Your task to perform on an android device: all mails in gmail Image 0: 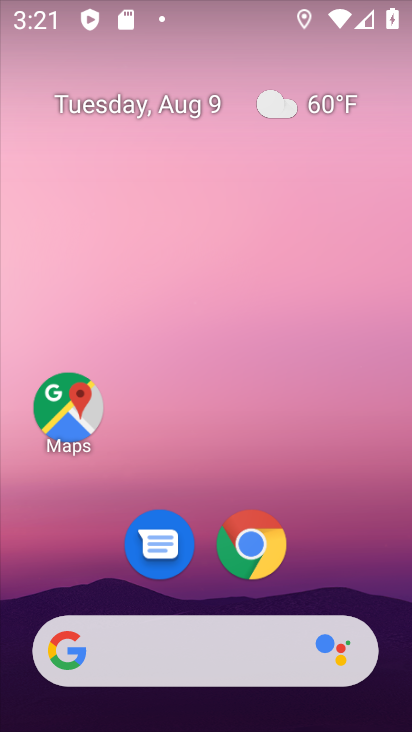
Step 0: drag from (234, 707) to (260, 239)
Your task to perform on an android device: all mails in gmail Image 1: 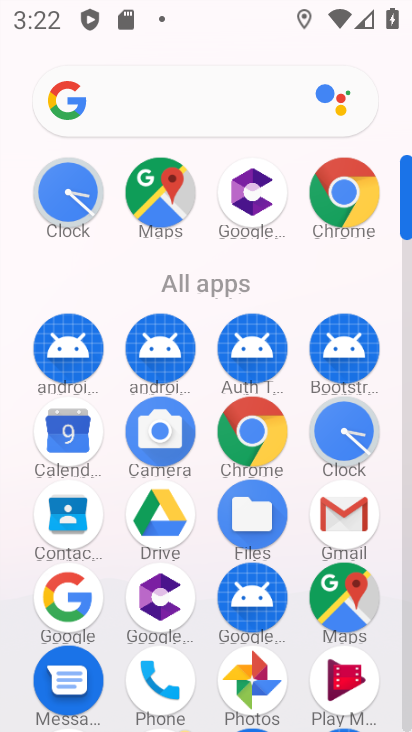
Step 1: click (363, 574)
Your task to perform on an android device: all mails in gmail Image 2: 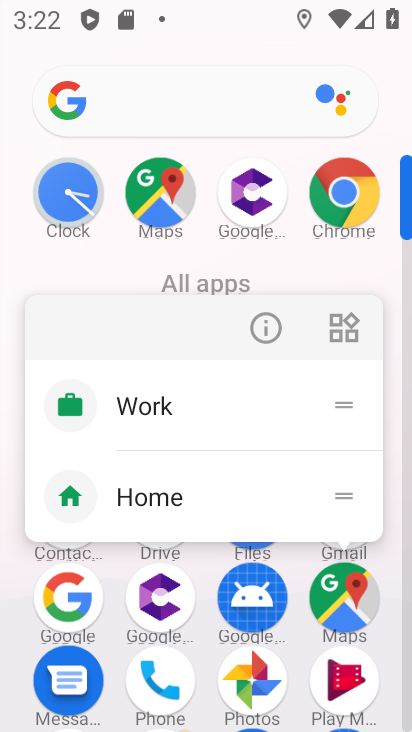
Step 2: click (241, 115)
Your task to perform on an android device: all mails in gmail Image 3: 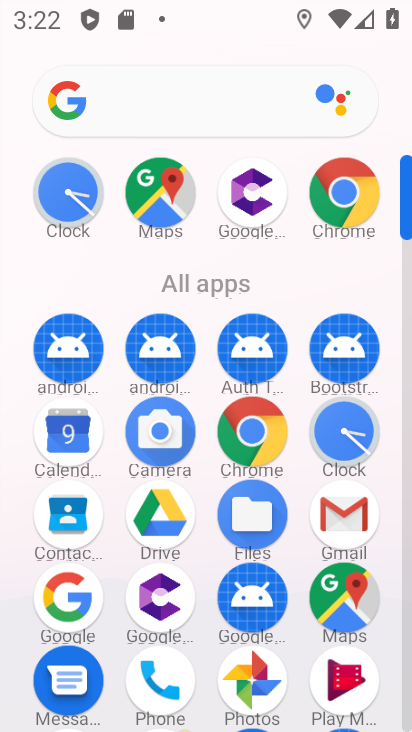
Step 3: click (338, 519)
Your task to perform on an android device: all mails in gmail Image 4: 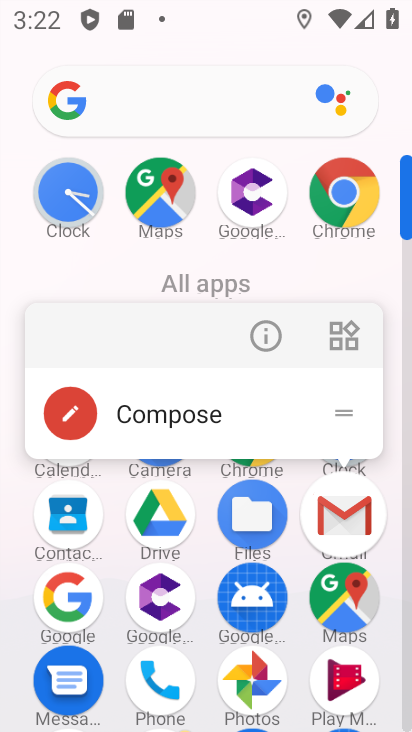
Step 4: click (338, 519)
Your task to perform on an android device: all mails in gmail Image 5: 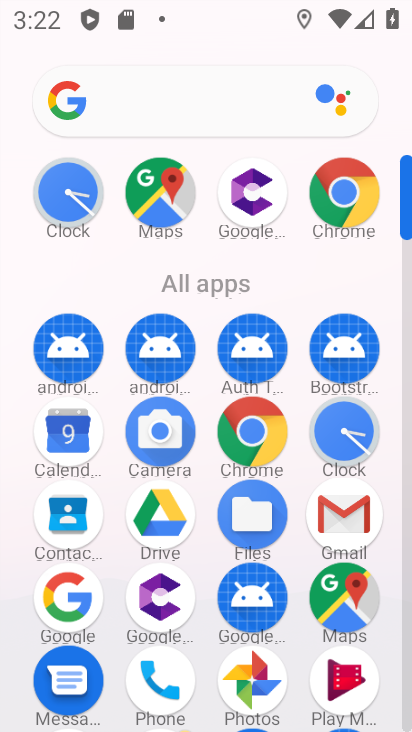
Step 5: click (338, 519)
Your task to perform on an android device: all mails in gmail Image 6: 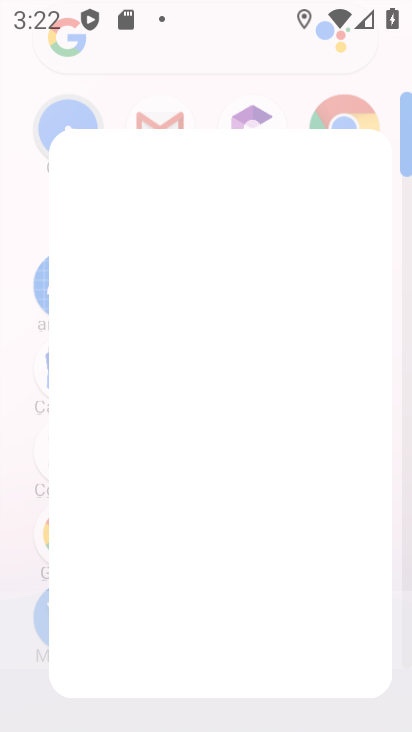
Step 6: click (338, 519)
Your task to perform on an android device: all mails in gmail Image 7: 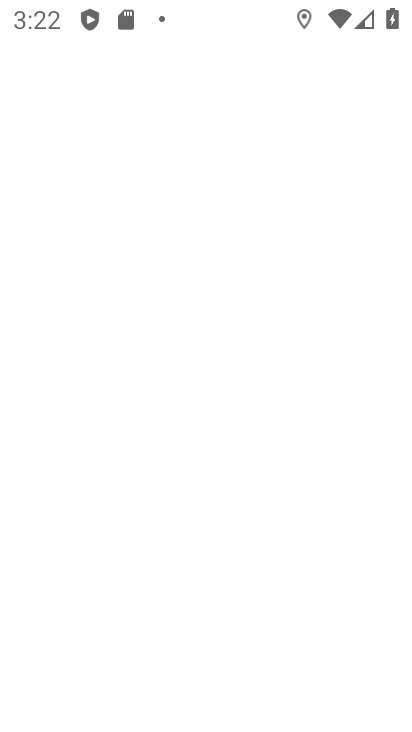
Step 7: click (338, 519)
Your task to perform on an android device: all mails in gmail Image 8: 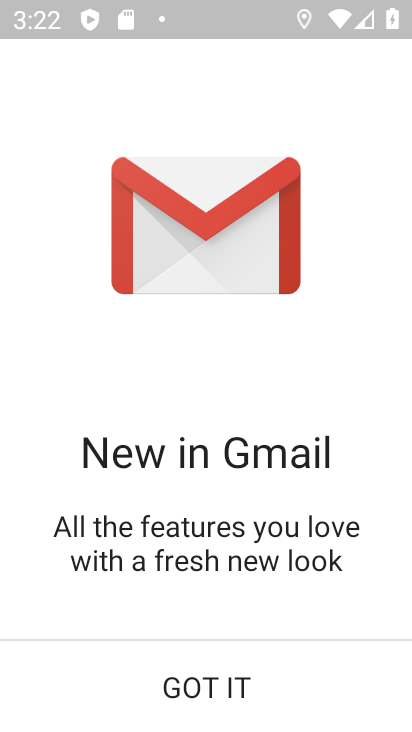
Step 8: click (220, 671)
Your task to perform on an android device: all mails in gmail Image 9: 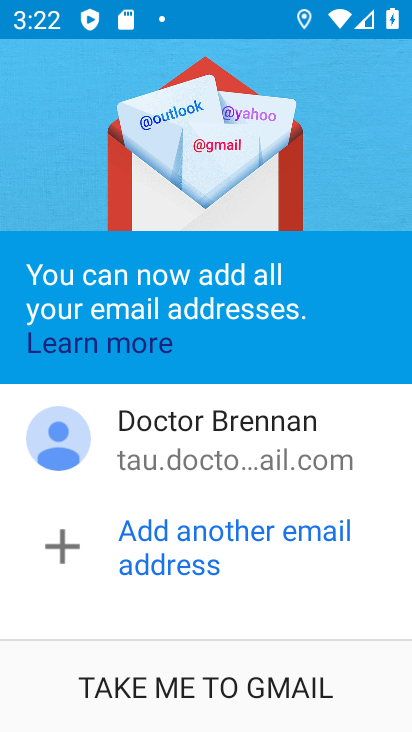
Step 9: click (222, 675)
Your task to perform on an android device: all mails in gmail Image 10: 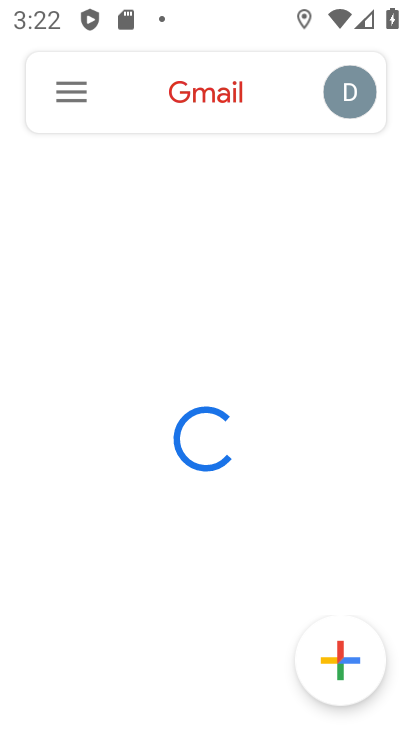
Step 10: click (70, 103)
Your task to perform on an android device: all mails in gmail Image 11: 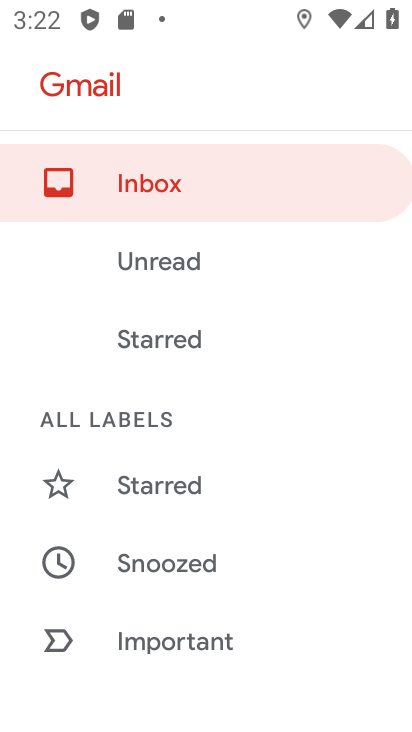
Step 11: drag from (261, 576) to (275, 173)
Your task to perform on an android device: all mails in gmail Image 12: 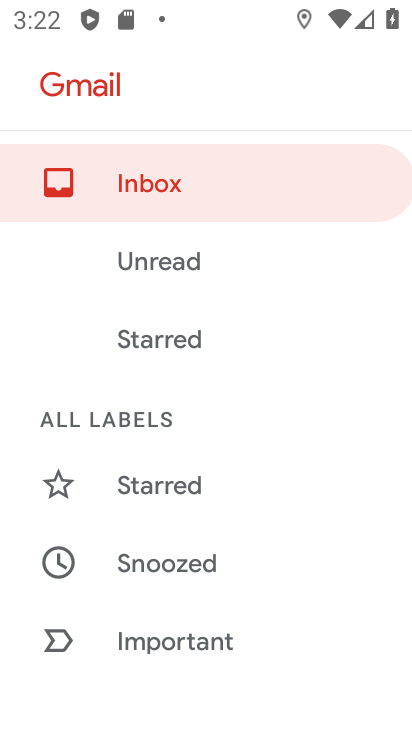
Step 12: drag from (201, 588) to (227, 41)
Your task to perform on an android device: all mails in gmail Image 13: 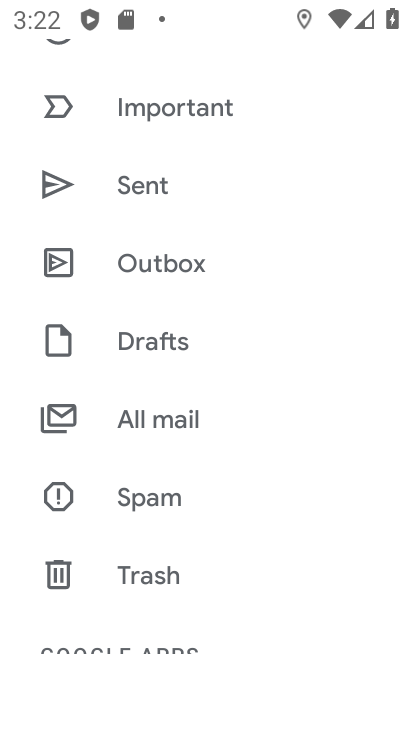
Step 13: click (219, 425)
Your task to perform on an android device: all mails in gmail Image 14: 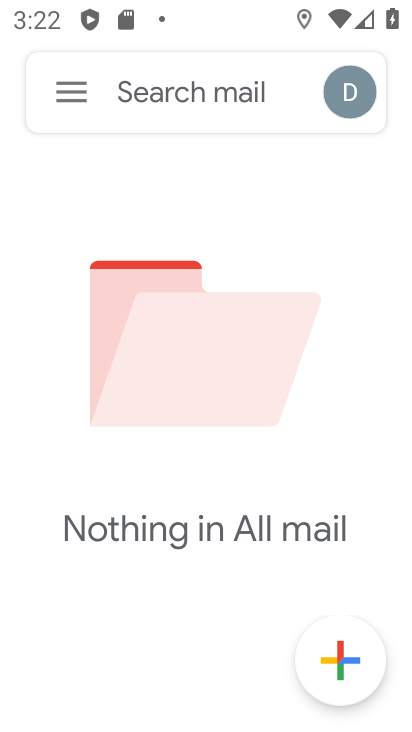
Step 14: task complete